Your task to perform on an android device: Open privacy settings Image 0: 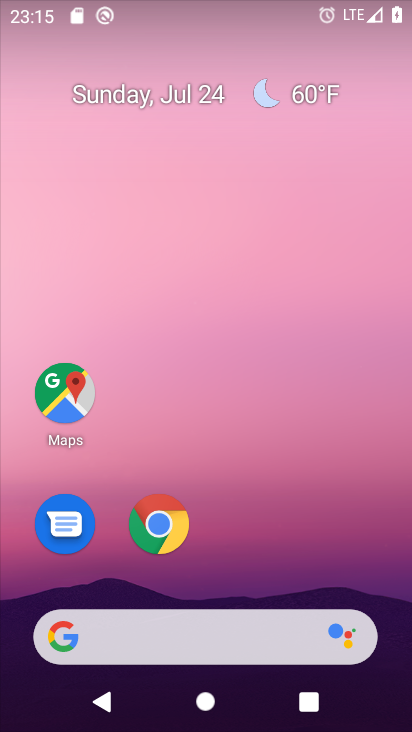
Step 0: drag from (269, 545) to (272, 33)
Your task to perform on an android device: Open privacy settings Image 1: 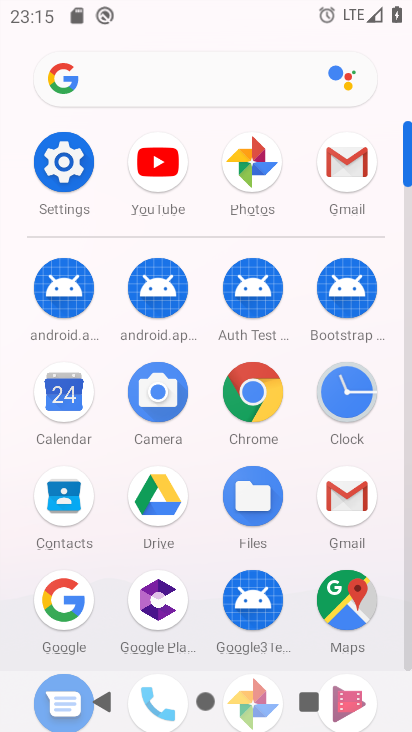
Step 1: click (70, 163)
Your task to perform on an android device: Open privacy settings Image 2: 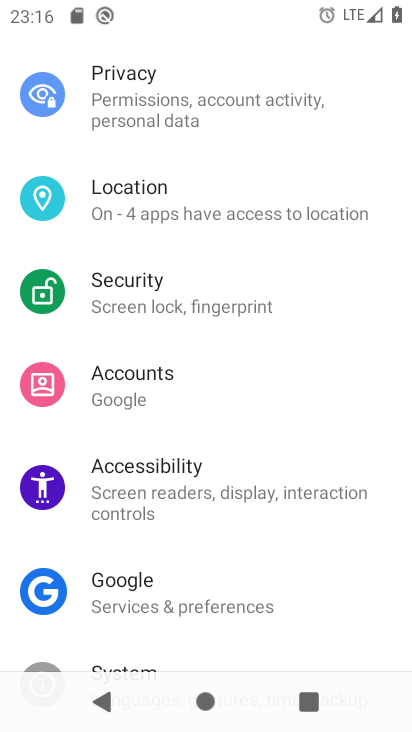
Step 2: click (191, 108)
Your task to perform on an android device: Open privacy settings Image 3: 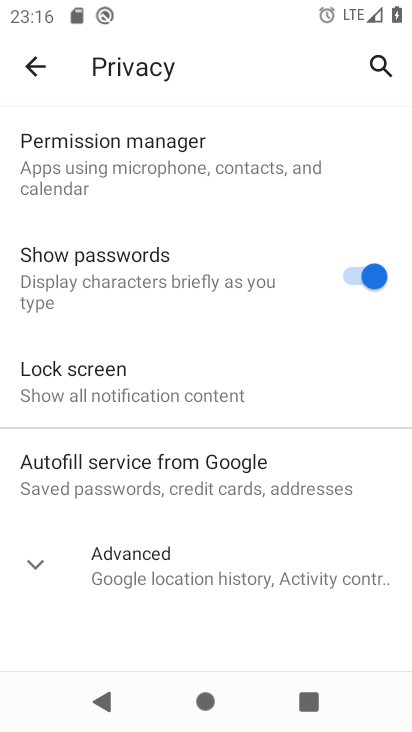
Step 3: task complete